Your task to perform on an android device: Open Chrome and go to settings Image 0: 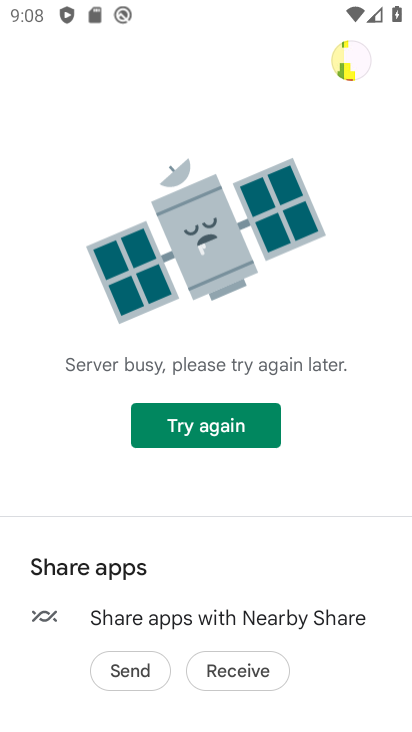
Step 0: press home button
Your task to perform on an android device: Open Chrome and go to settings Image 1: 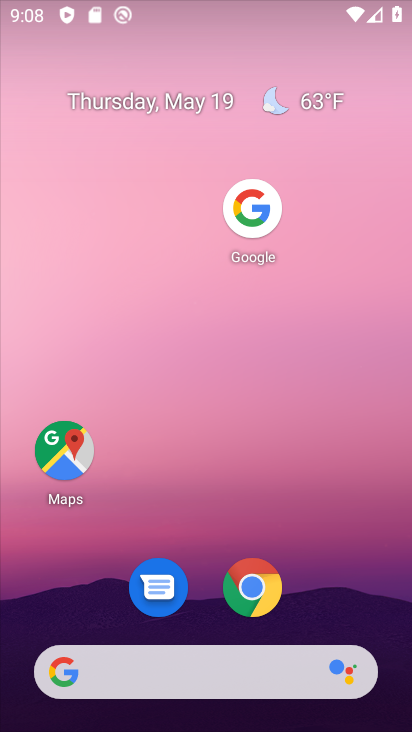
Step 1: drag from (219, 635) to (243, 18)
Your task to perform on an android device: Open Chrome and go to settings Image 2: 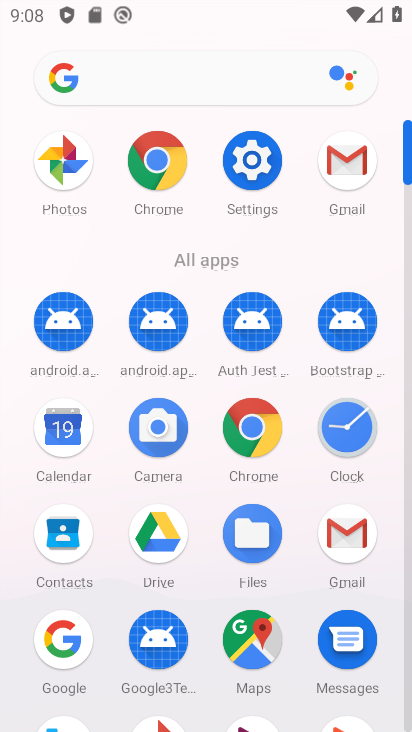
Step 2: click (252, 424)
Your task to perform on an android device: Open Chrome and go to settings Image 3: 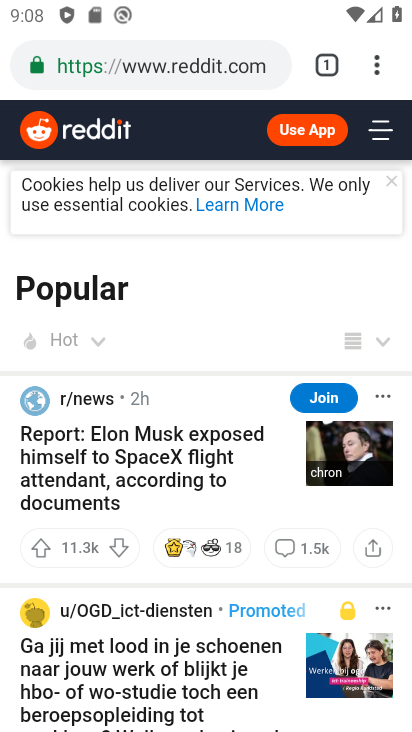
Step 3: click (375, 69)
Your task to perform on an android device: Open Chrome and go to settings Image 4: 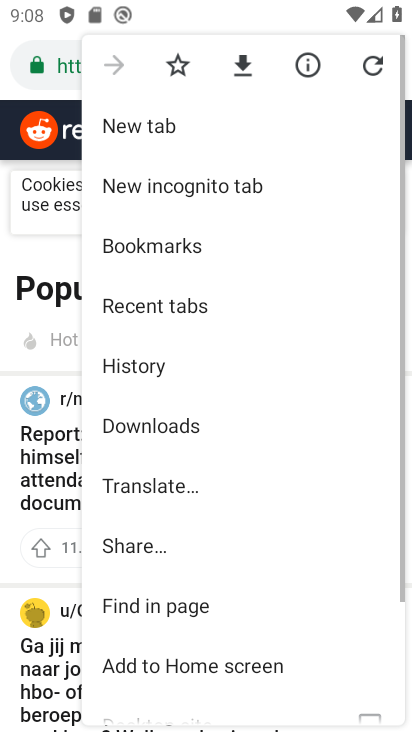
Step 4: drag from (190, 585) to (141, 146)
Your task to perform on an android device: Open Chrome and go to settings Image 5: 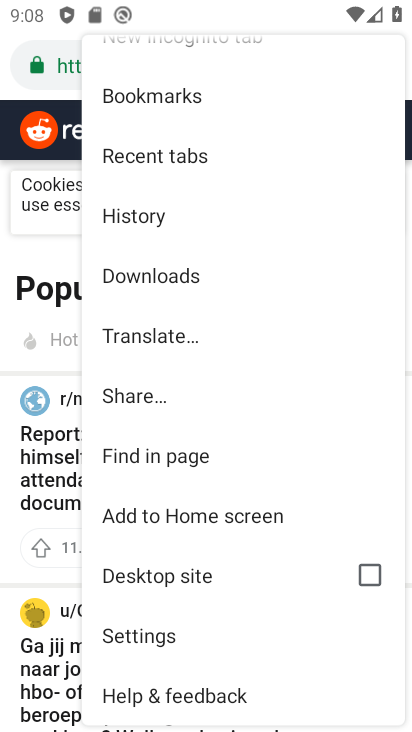
Step 5: click (135, 623)
Your task to perform on an android device: Open Chrome and go to settings Image 6: 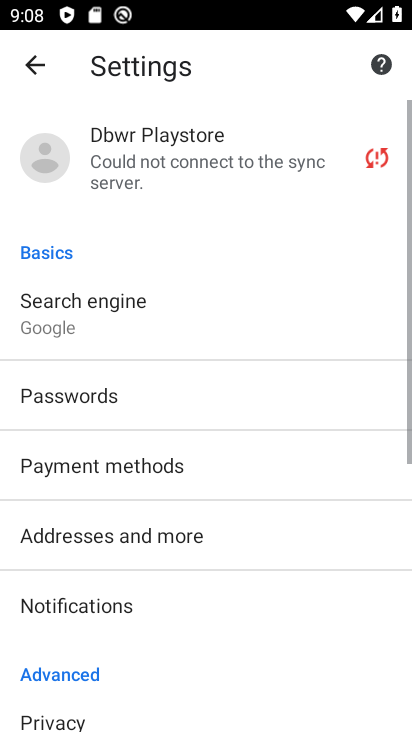
Step 6: task complete